Your task to perform on an android device: Open sound settings Image 0: 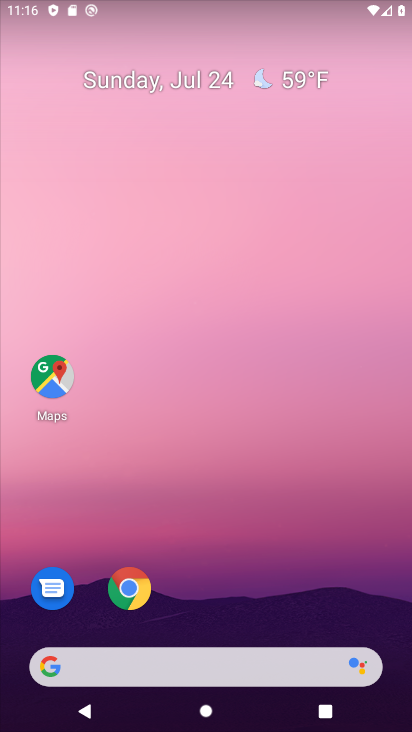
Step 0: drag from (369, 598) to (140, 3)
Your task to perform on an android device: Open sound settings Image 1: 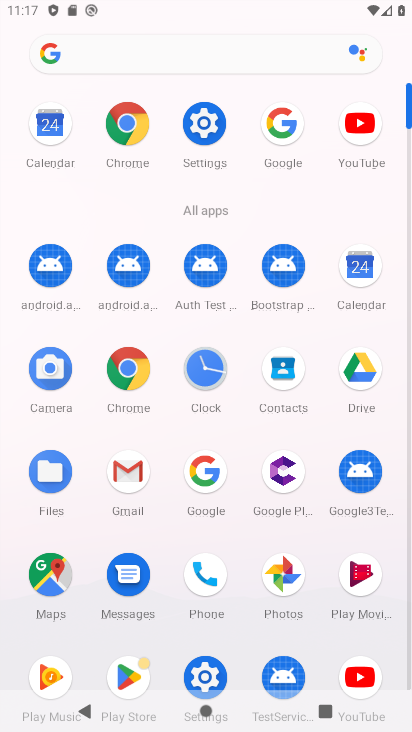
Step 1: click (196, 676)
Your task to perform on an android device: Open sound settings Image 2: 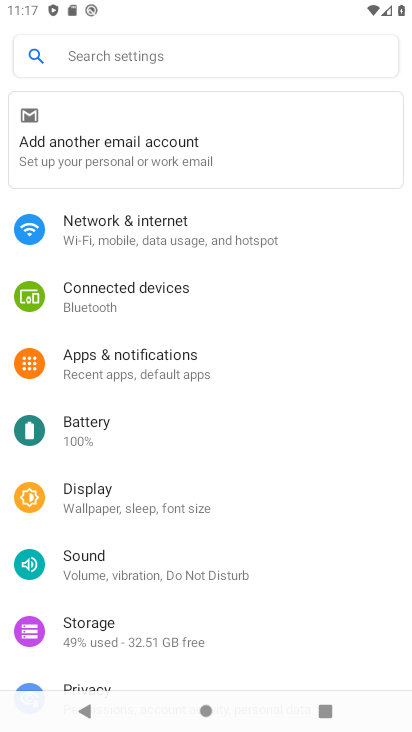
Step 2: click (118, 561)
Your task to perform on an android device: Open sound settings Image 3: 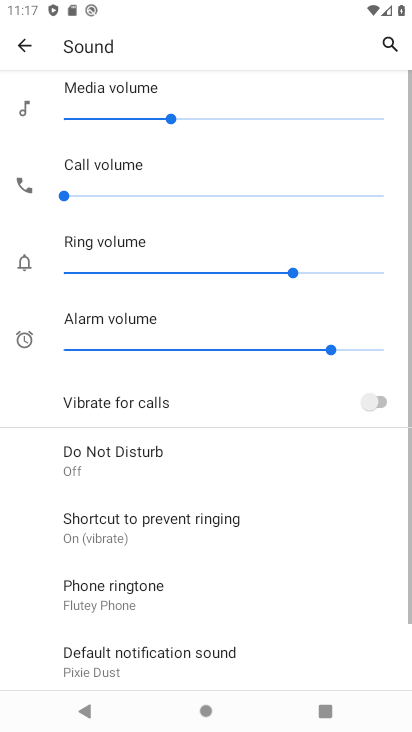
Step 3: task complete